Your task to perform on an android device: Search for vegetarian restaurants on Maps Image 0: 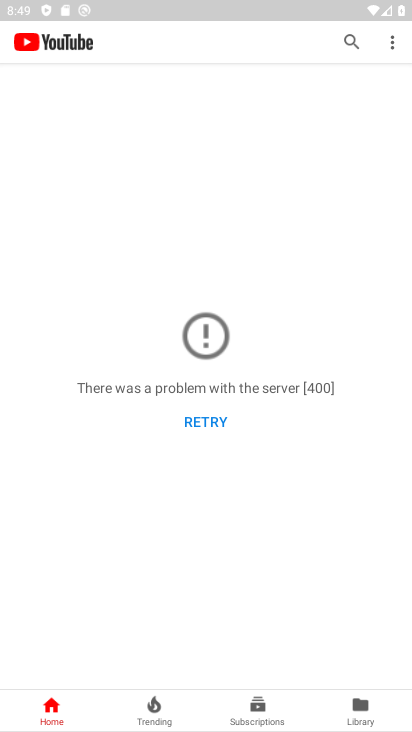
Step 0: press home button
Your task to perform on an android device: Search for vegetarian restaurants on Maps Image 1: 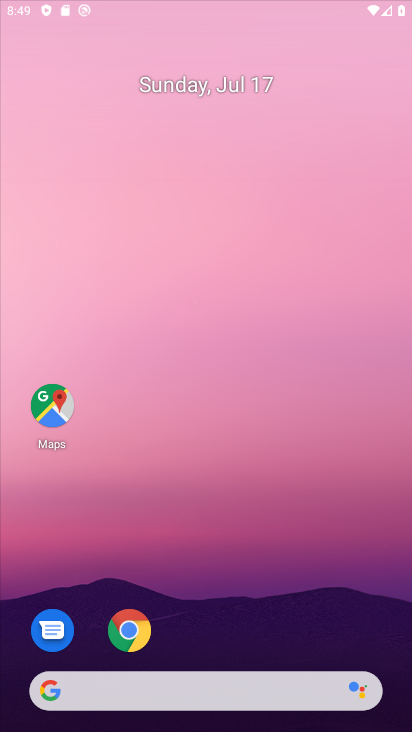
Step 1: drag from (282, 623) to (310, 16)
Your task to perform on an android device: Search for vegetarian restaurants on Maps Image 2: 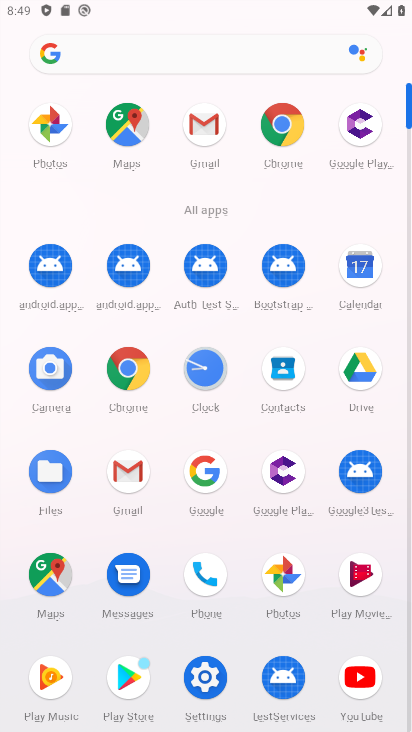
Step 2: click (53, 571)
Your task to perform on an android device: Search for vegetarian restaurants on Maps Image 3: 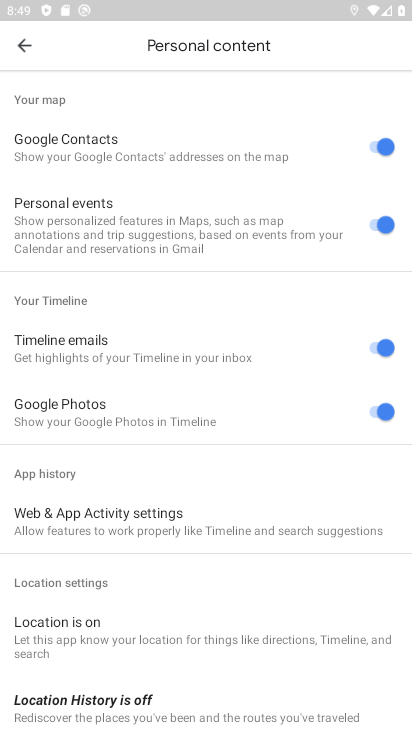
Step 3: press back button
Your task to perform on an android device: Search for vegetarian restaurants on Maps Image 4: 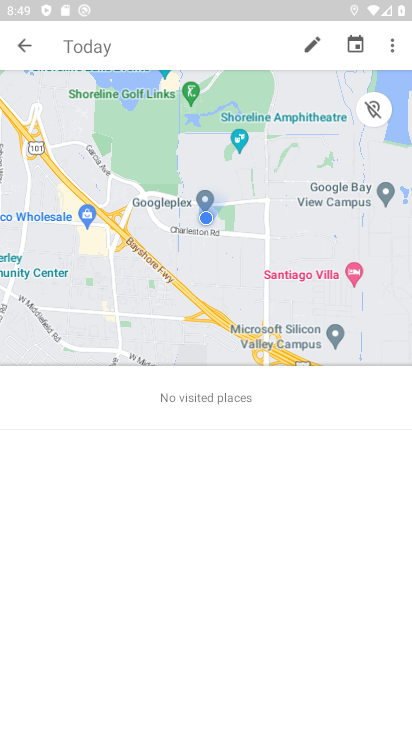
Step 4: press back button
Your task to perform on an android device: Search for vegetarian restaurants on Maps Image 5: 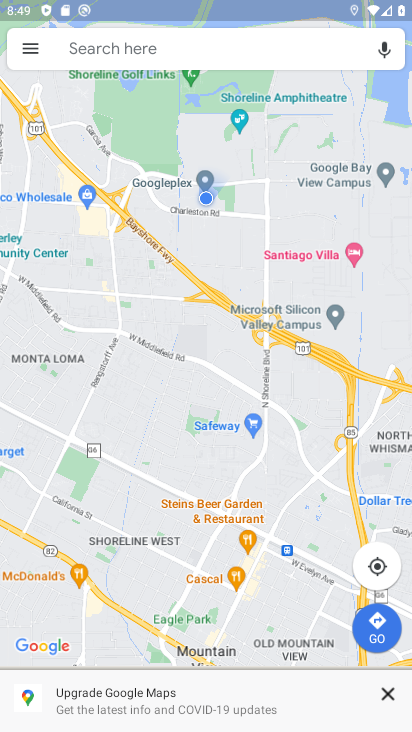
Step 5: click (255, 54)
Your task to perform on an android device: Search for vegetarian restaurants on Maps Image 6: 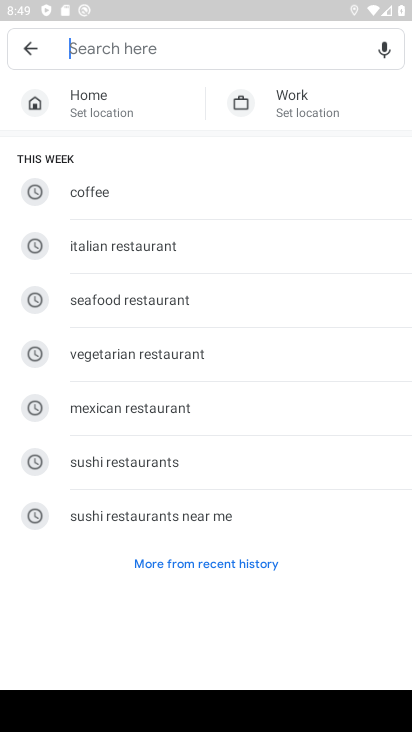
Step 6: click (263, 352)
Your task to perform on an android device: Search for vegetarian restaurants on Maps Image 7: 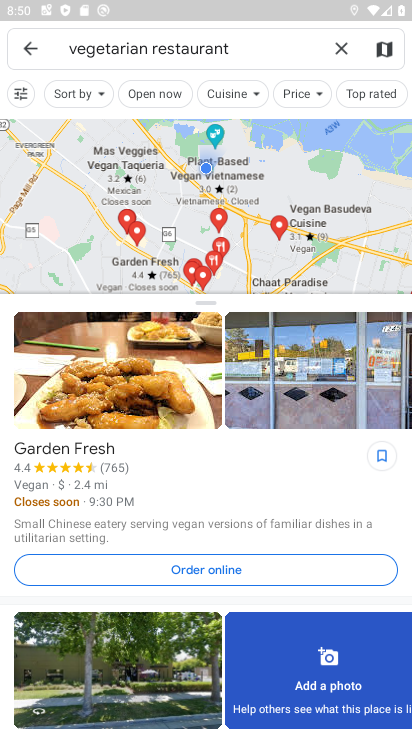
Step 7: task complete